Your task to perform on an android device: check battery use Image 0: 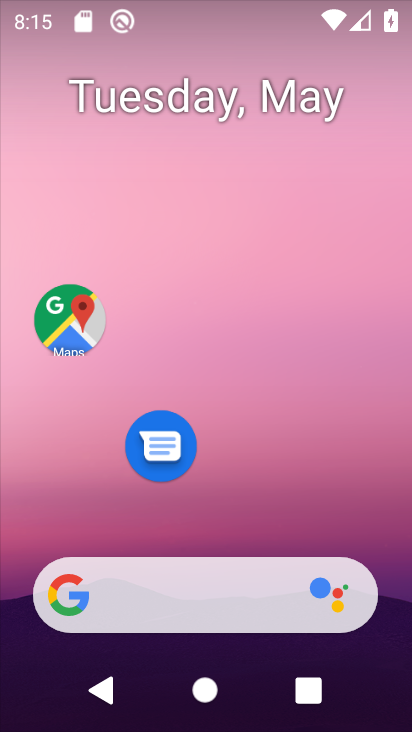
Step 0: drag from (211, 538) to (380, 374)
Your task to perform on an android device: check battery use Image 1: 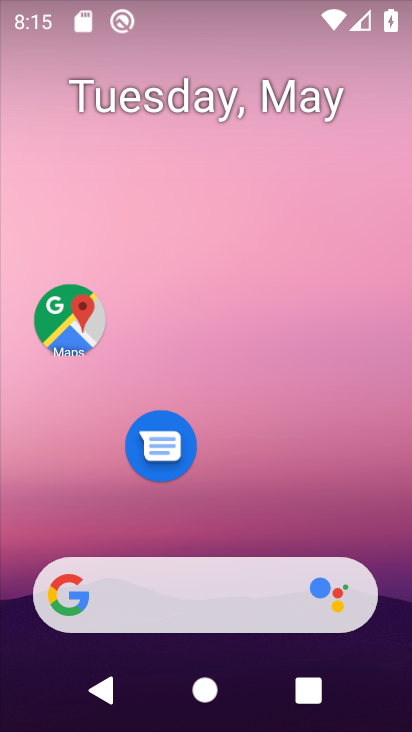
Step 1: drag from (210, 542) to (211, 17)
Your task to perform on an android device: check battery use Image 2: 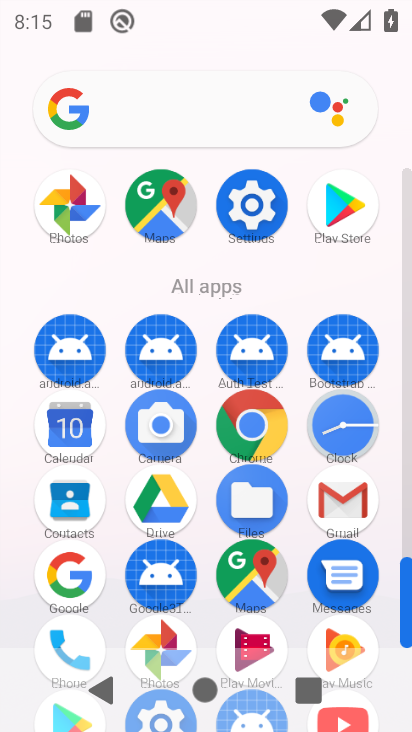
Step 2: click (255, 205)
Your task to perform on an android device: check battery use Image 3: 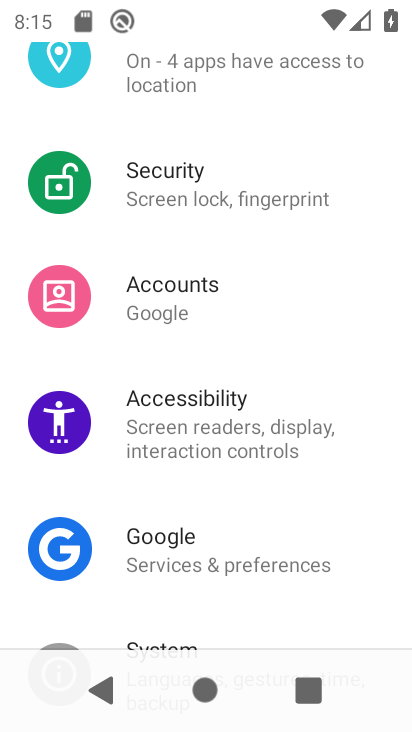
Step 3: drag from (195, 171) to (197, 548)
Your task to perform on an android device: check battery use Image 4: 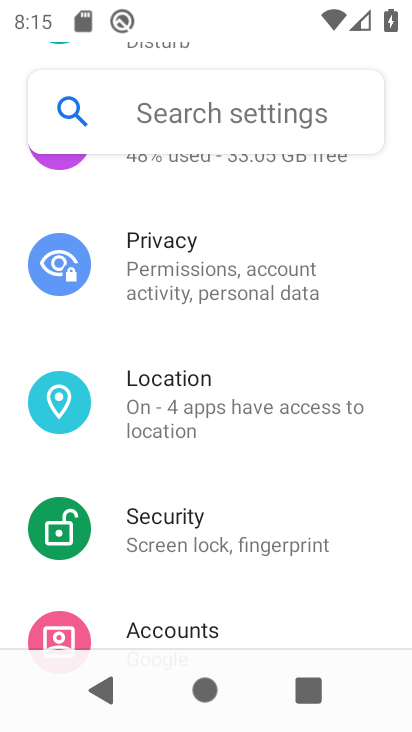
Step 4: drag from (220, 240) to (222, 595)
Your task to perform on an android device: check battery use Image 5: 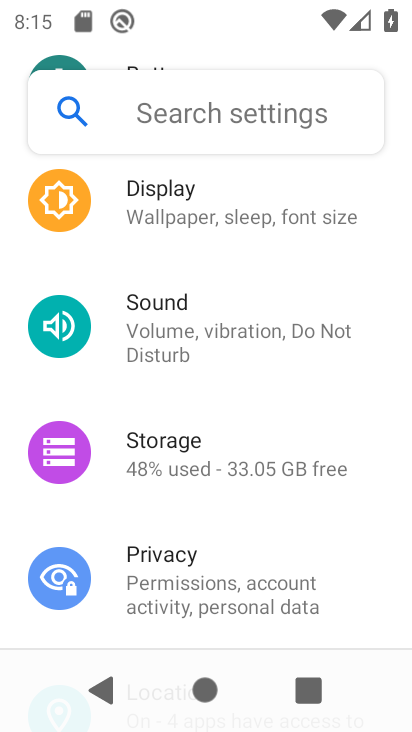
Step 5: drag from (185, 243) to (176, 594)
Your task to perform on an android device: check battery use Image 6: 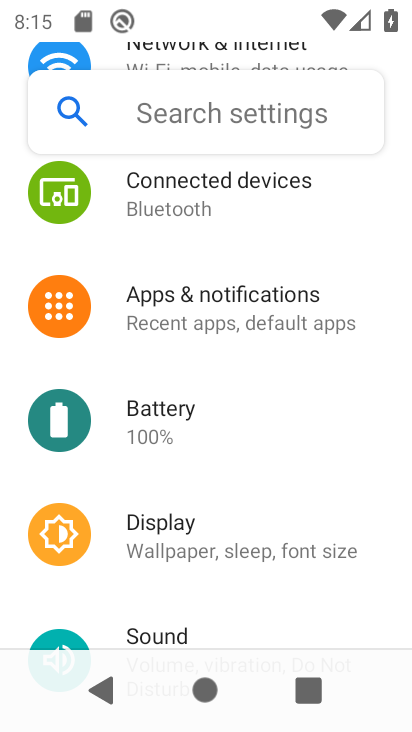
Step 6: drag from (184, 209) to (186, 554)
Your task to perform on an android device: check battery use Image 7: 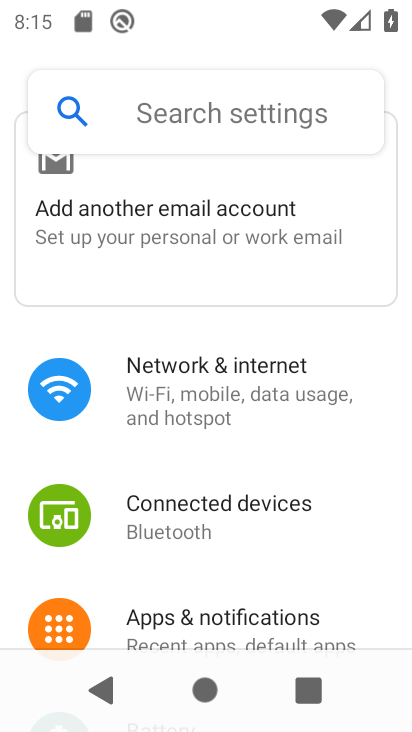
Step 7: drag from (186, 568) to (196, 289)
Your task to perform on an android device: check battery use Image 8: 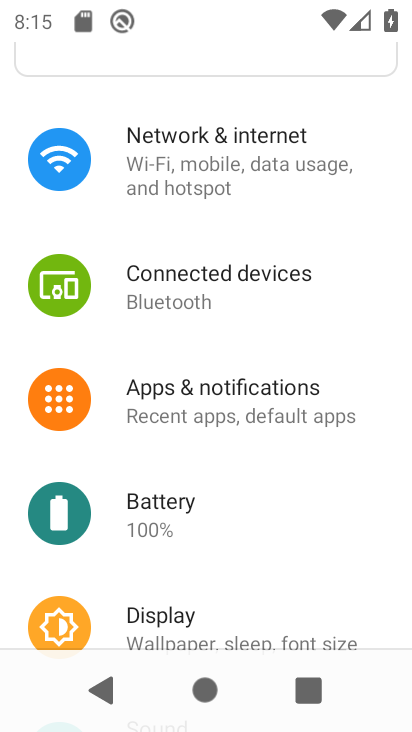
Step 8: click (187, 502)
Your task to perform on an android device: check battery use Image 9: 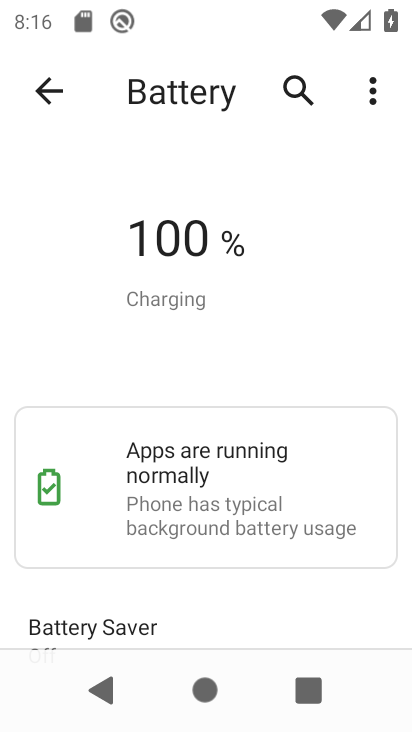
Step 9: task complete